Your task to perform on an android device: Search for vegetarian restaurants on Maps Image 0: 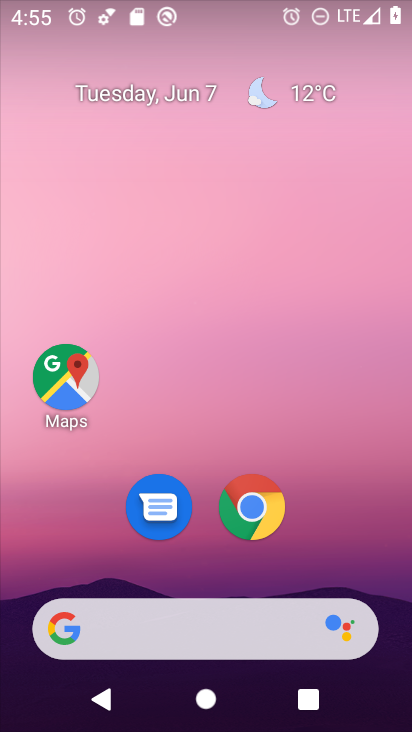
Step 0: drag from (340, 542) to (264, 56)
Your task to perform on an android device: Search for vegetarian restaurants on Maps Image 1: 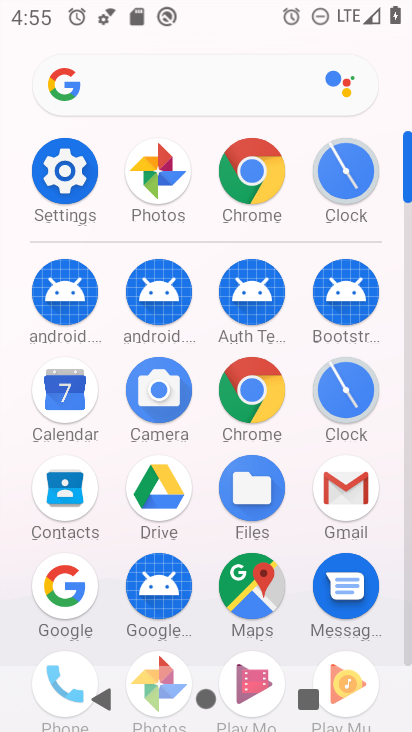
Step 1: drag from (24, 557) to (48, 260)
Your task to perform on an android device: Search for vegetarian restaurants on Maps Image 2: 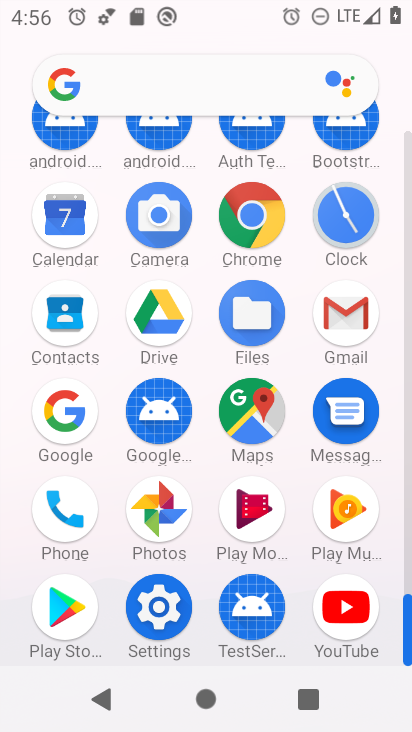
Step 2: click (247, 213)
Your task to perform on an android device: Search for vegetarian restaurants on Maps Image 3: 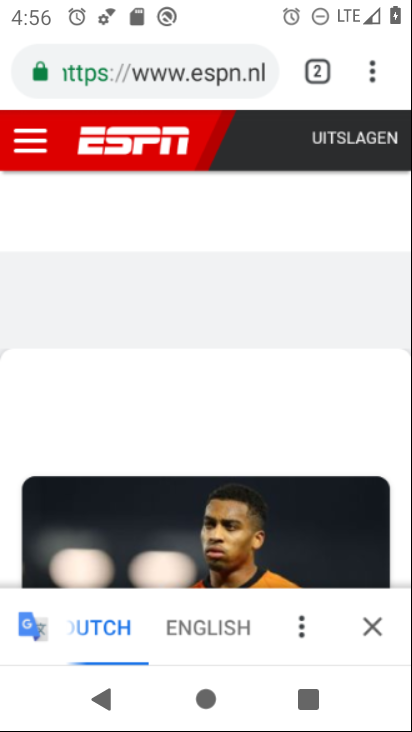
Step 3: press back button
Your task to perform on an android device: Search for vegetarian restaurants on Maps Image 4: 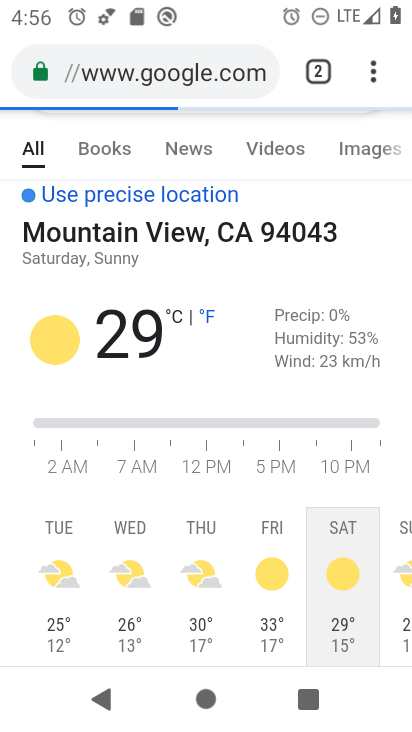
Step 4: press back button
Your task to perform on an android device: Search for vegetarian restaurants on Maps Image 5: 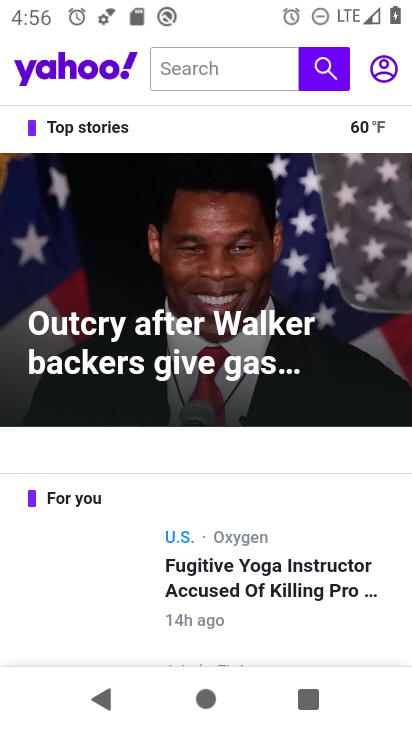
Step 5: press home button
Your task to perform on an android device: Search for vegetarian restaurants on Maps Image 6: 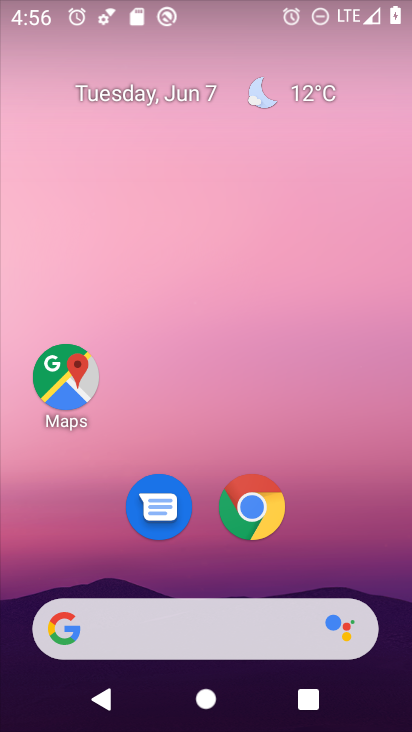
Step 6: click (61, 378)
Your task to perform on an android device: Search for vegetarian restaurants on Maps Image 7: 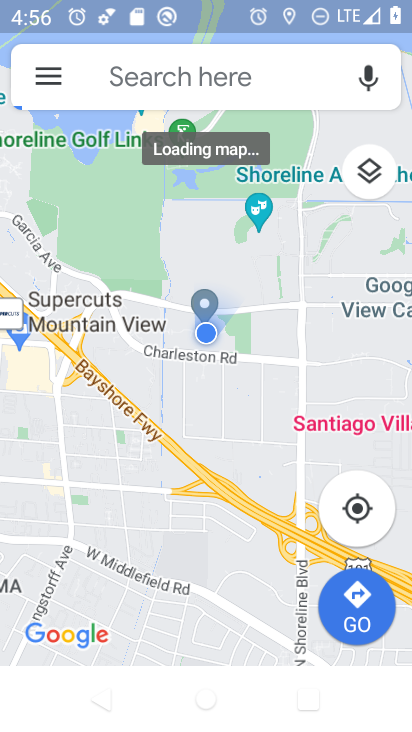
Step 7: click (285, 68)
Your task to perform on an android device: Search for vegetarian restaurants on Maps Image 8: 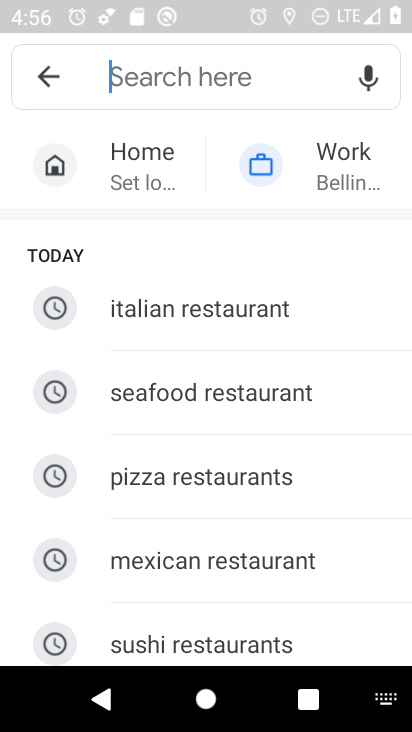
Step 8: type "vegetarian restaurants "
Your task to perform on an android device: Search for vegetarian restaurants on Maps Image 9: 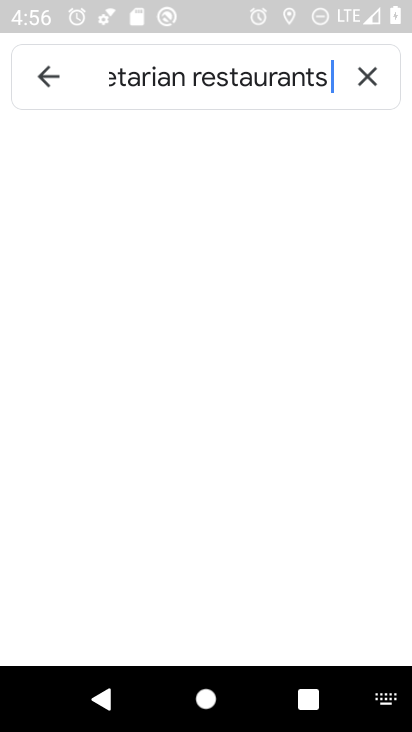
Step 9: type ""
Your task to perform on an android device: Search for vegetarian restaurants on Maps Image 10: 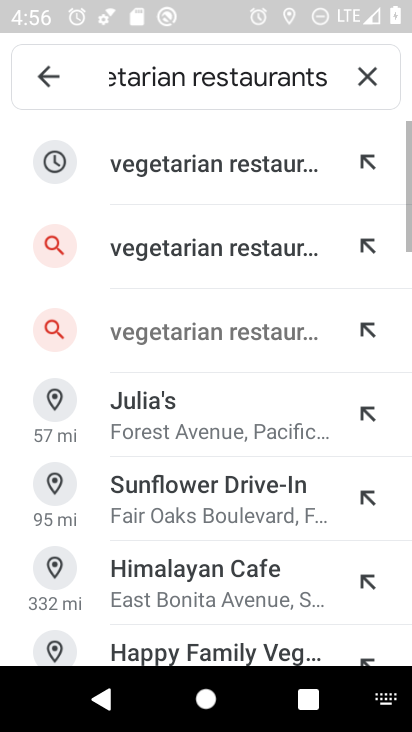
Step 10: click (174, 168)
Your task to perform on an android device: Search for vegetarian restaurants on Maps Image 11: 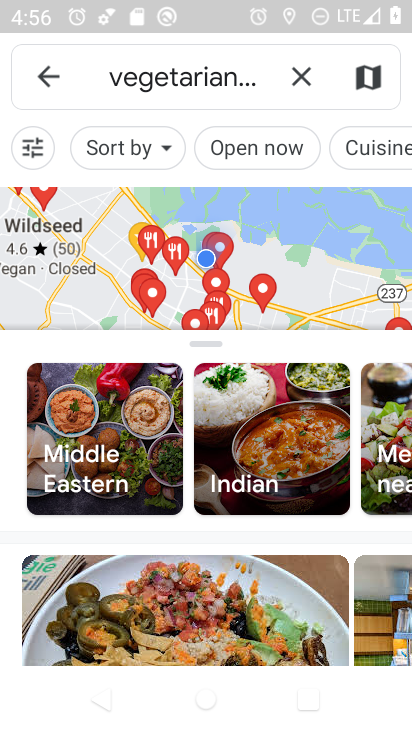
Step 11: task complete